Your task to perform on an android device: check data usage Image 0: 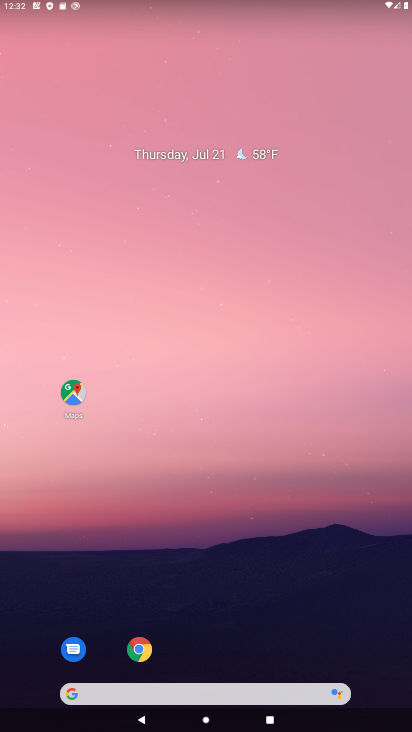
Step 0: drag from (385, 675) to (337, 113)
Your task to perform on an android device: check data usage Image 1: 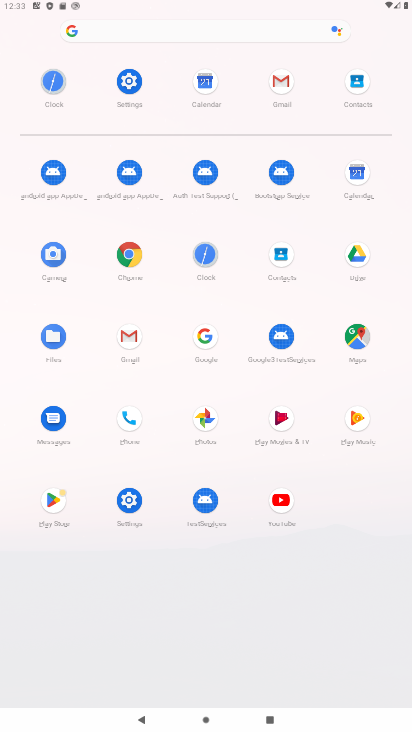
Step 1: click (129, 502)
Your task to perform on an android device: check data usage Image 2: 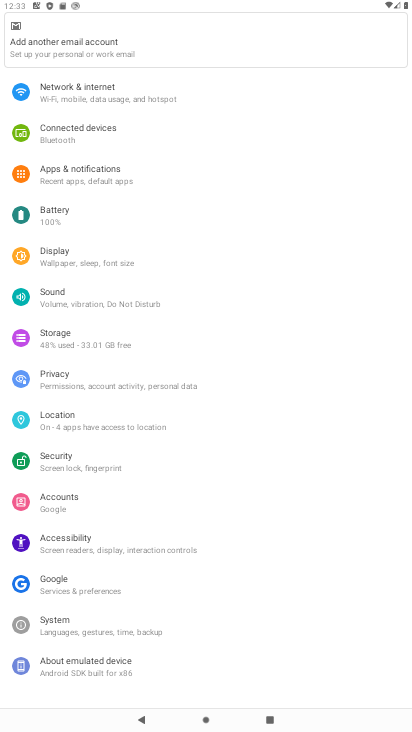
Step 2: click (70, 98)
Your task to perform on an android device: check data usage Image 3: 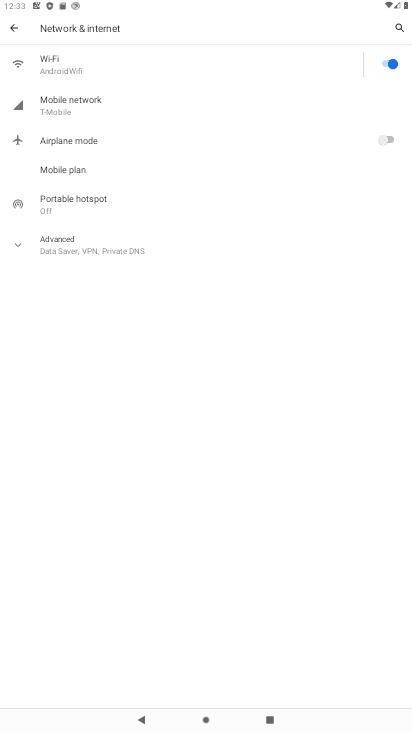
Step 3: click (57, 101)
Your task to perform on an android device: check data usage Image 4: 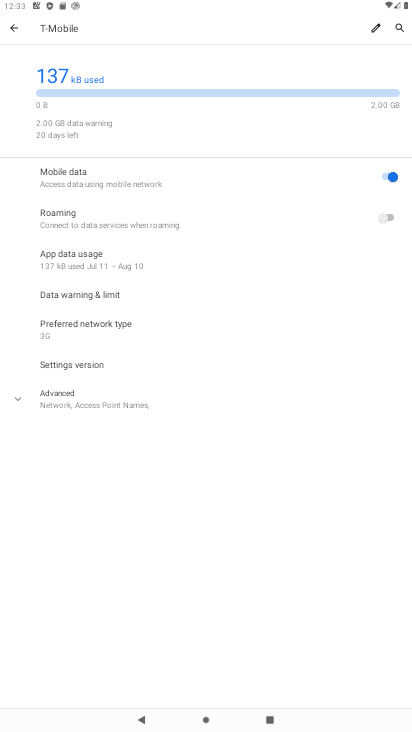
Step 4: task complete